Your task to perform on an android device: Search for "rayovac triple a" on bestbuy, select the first entry, add it to the cart, then select checkout. Image 0: 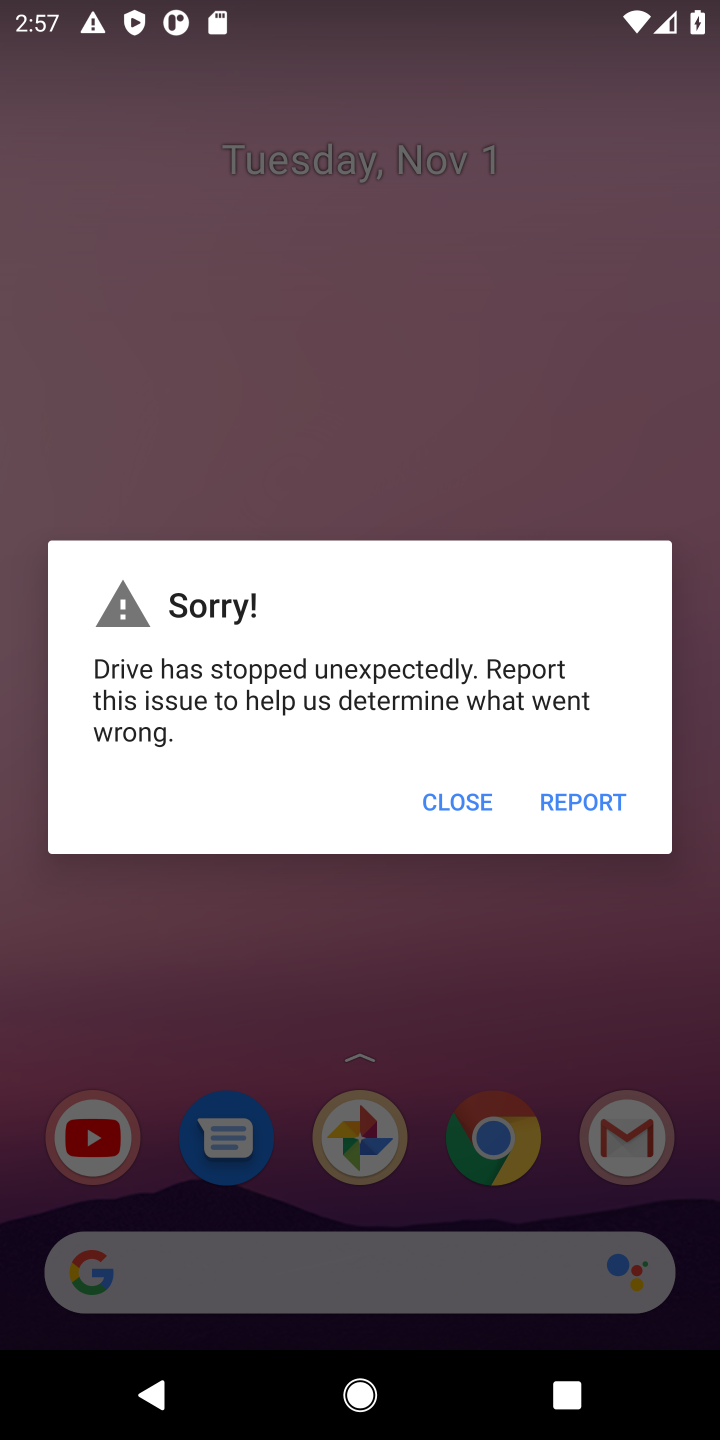
Step 0: click (460, 783)
Your task to perform on an android device: Search for "rayovac triple a" on bestbuy, select the first entry, add it to the cart, then select checkout. Image 1: 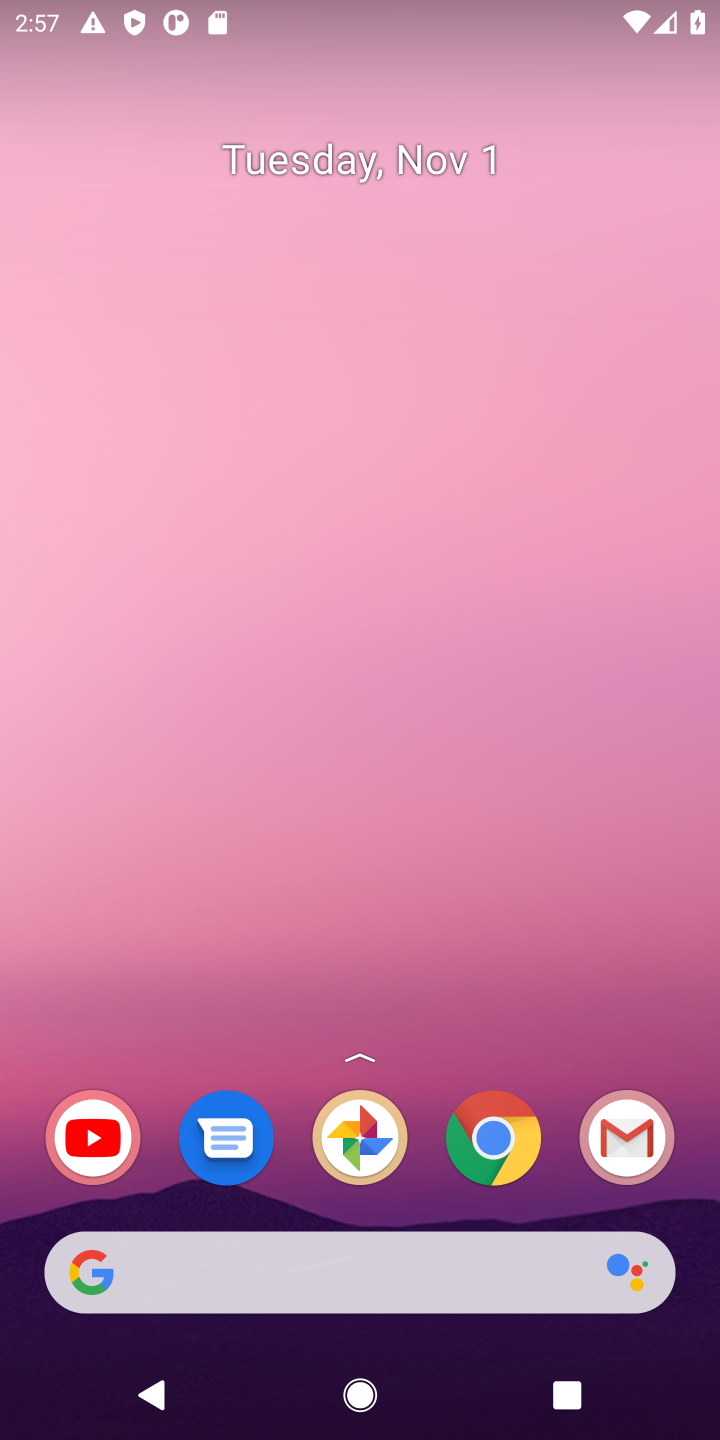
Step 1: click (495, 1148)
Your task to perform on an android device: Search for "rayovac triple a" on bestbuy, select the first entry, add it to the cart, then select checkout. Image 2: 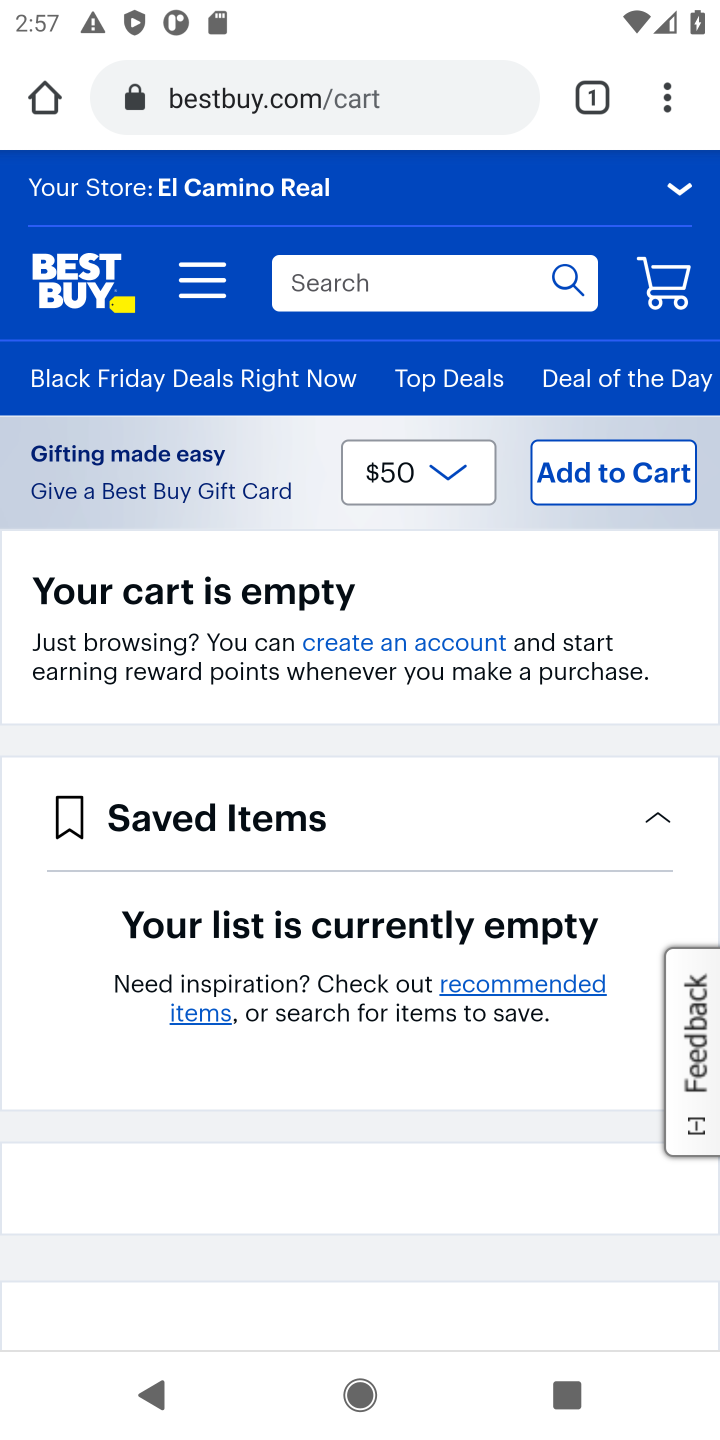
Step 2: click (411, 279)
Your task to perform on an android device: Search for "rayovac triple a" on bestbuy, select the first entry, add it to the cart, then select checkout. Image 3: 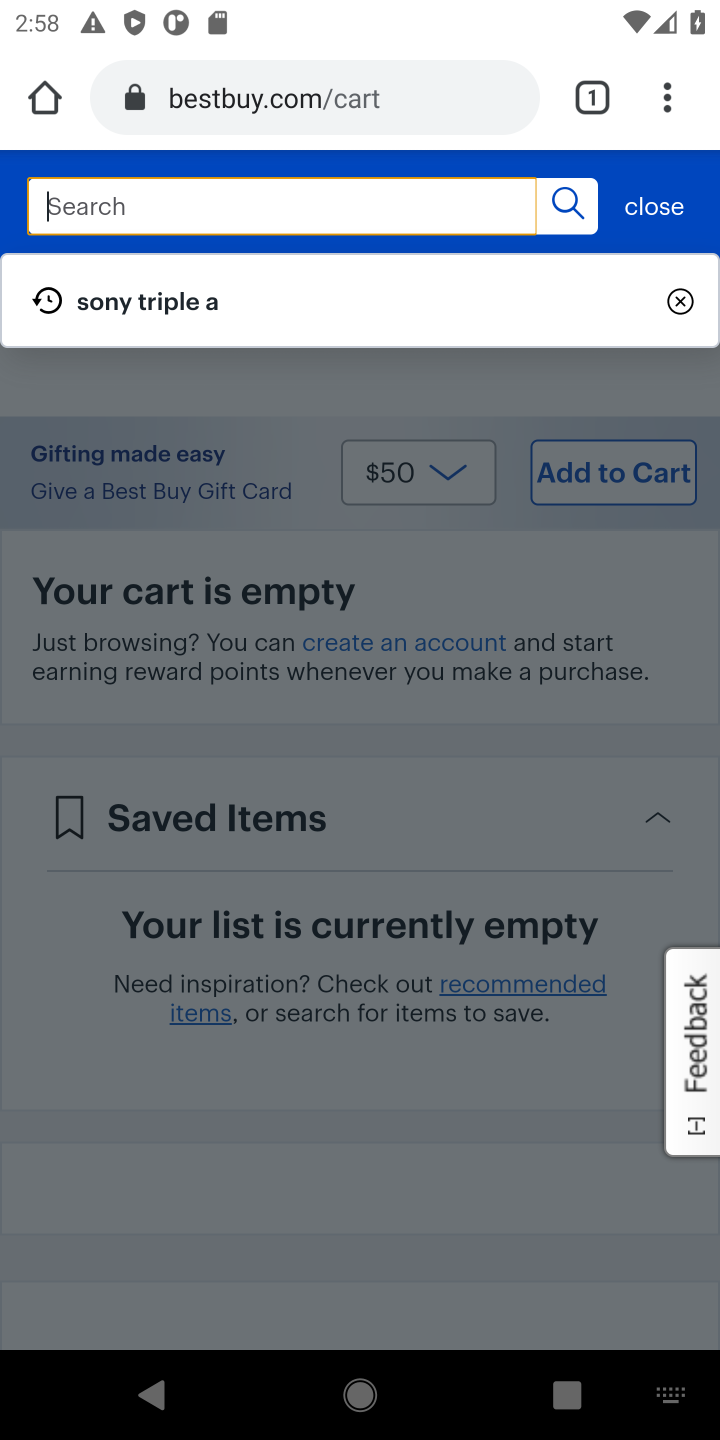
Step 3: type "rayovac triple a"
Your task to perform on an android device: Search for "rayovac triple a" on bestbuy, select the first entry, add it to the cart, then select checkout. Image 4: 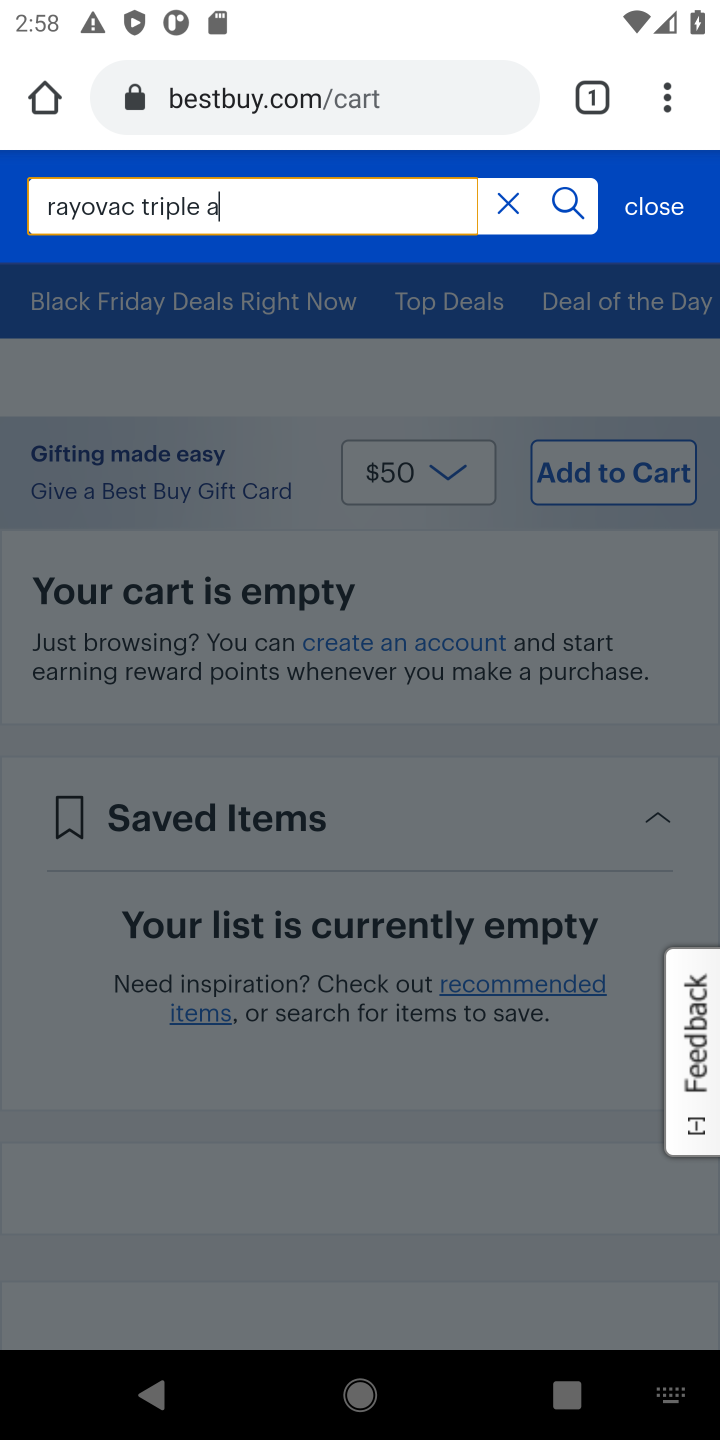
Step 4: click (558, 205)
Your task to perform on an android device: Search for "rayovac triple a" on bestbuy, select the first entry, add it to the cart, then select checkout. Image 5: 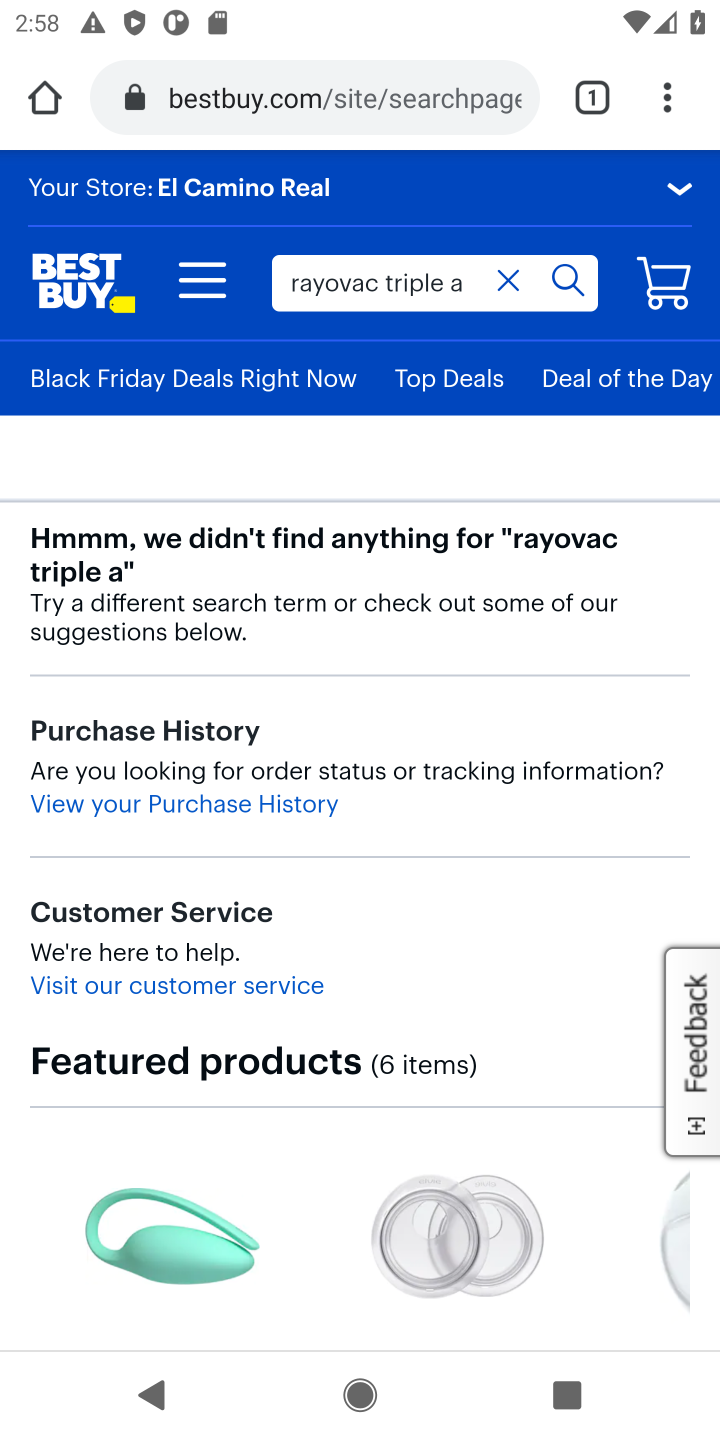
Step 5: click (569, 274)
Your task to perform on an android device: Search for "rayovac triple a" on bestbuy, select the first entry, add it to the cart, then select checkout. Image 6: 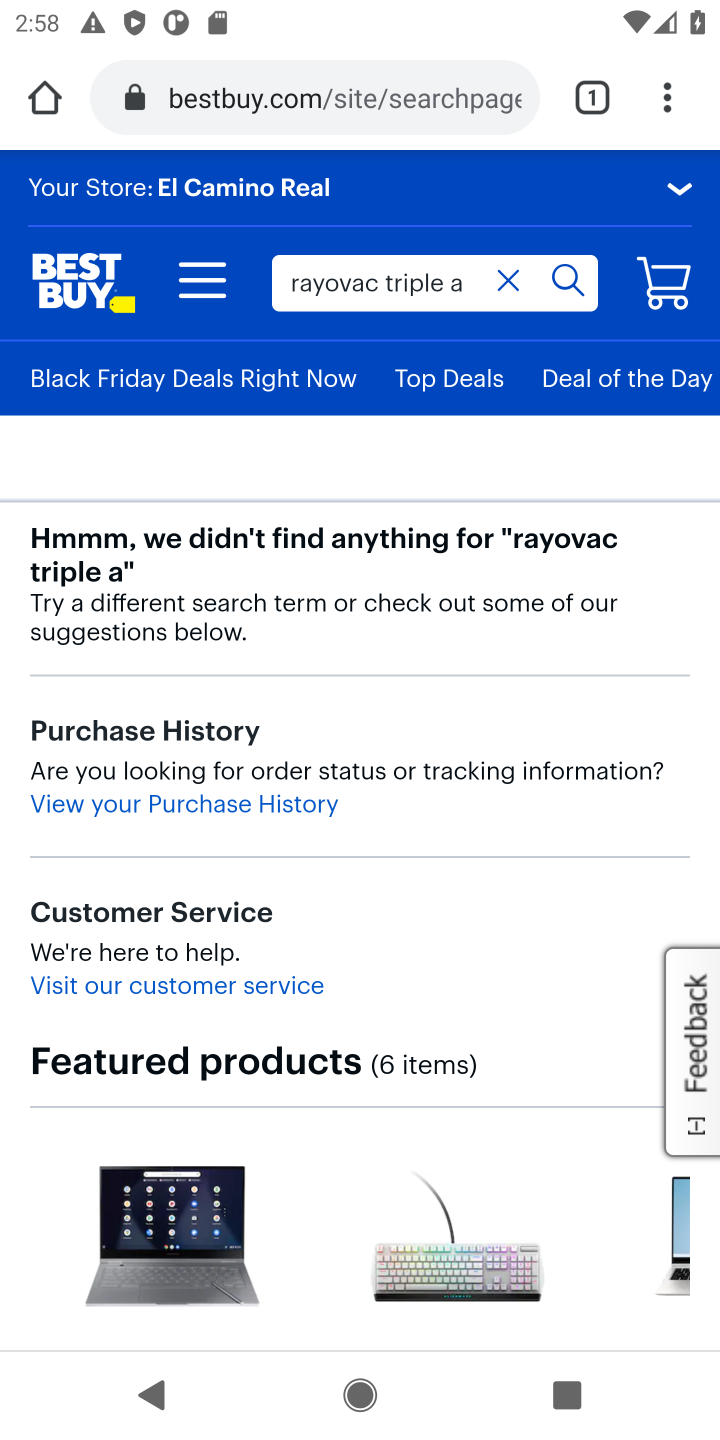
Step 6: task complete